Your task to perform on an android device: turn pop-ups on in chrome Image 0: 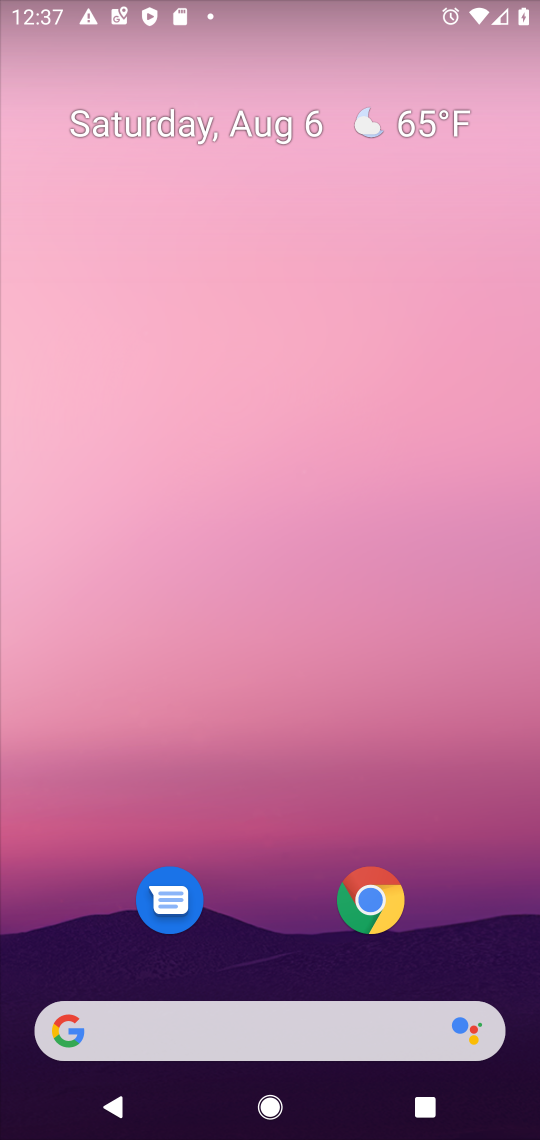
Step 0: click (371, 905)
Your task to perform on an android device: turn pop-ups on in chrome Image 1: 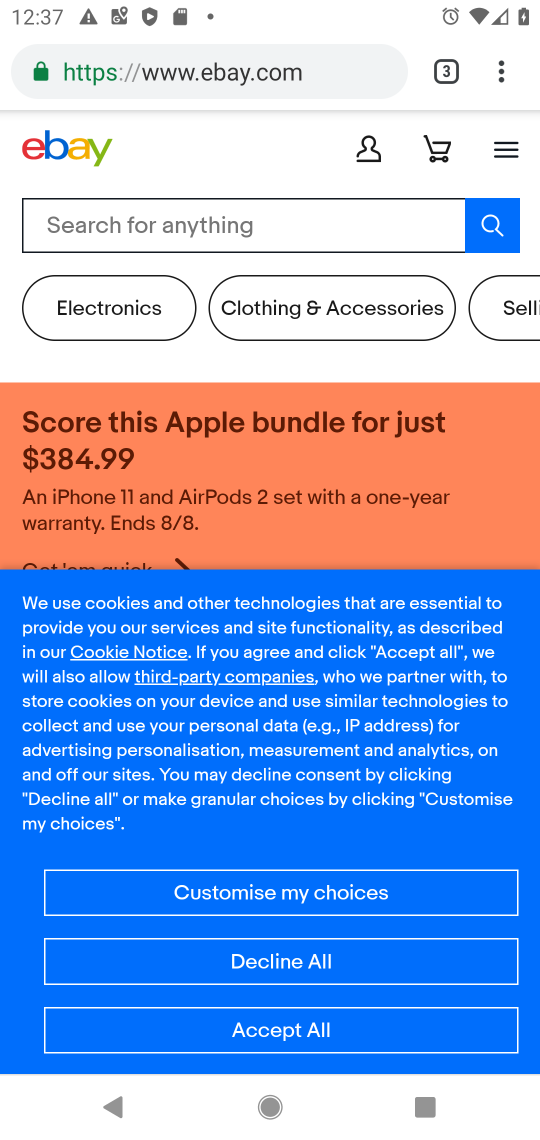
Step 1: click (497, 78)
Your task to perform on an android device: turn pop-ups on in chrome Image 2: 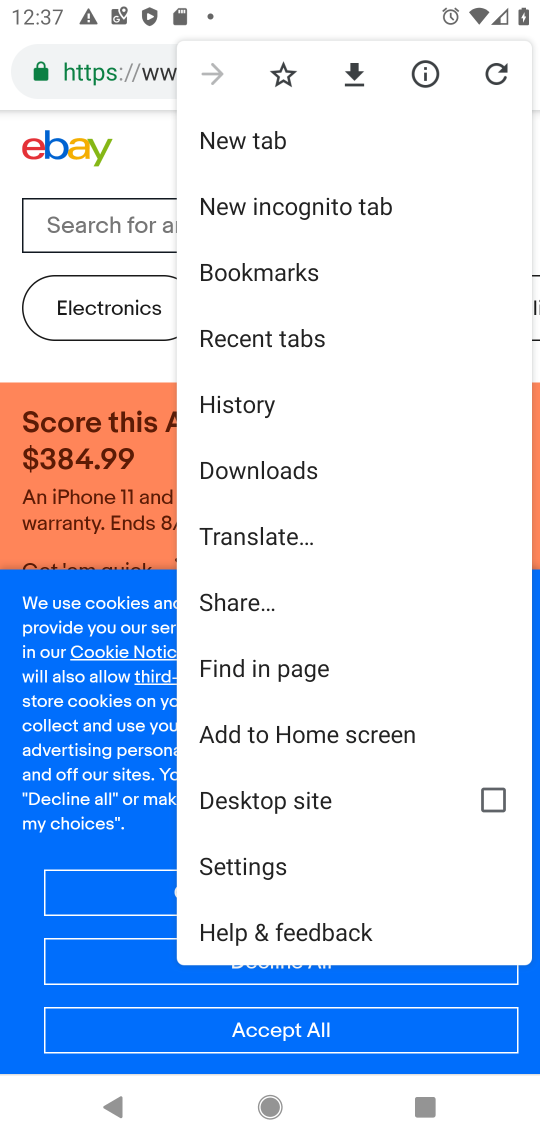
Step 2: click (262, 867)
Your task to perform on an android device: turn pop-ups on in chrome Image 3: 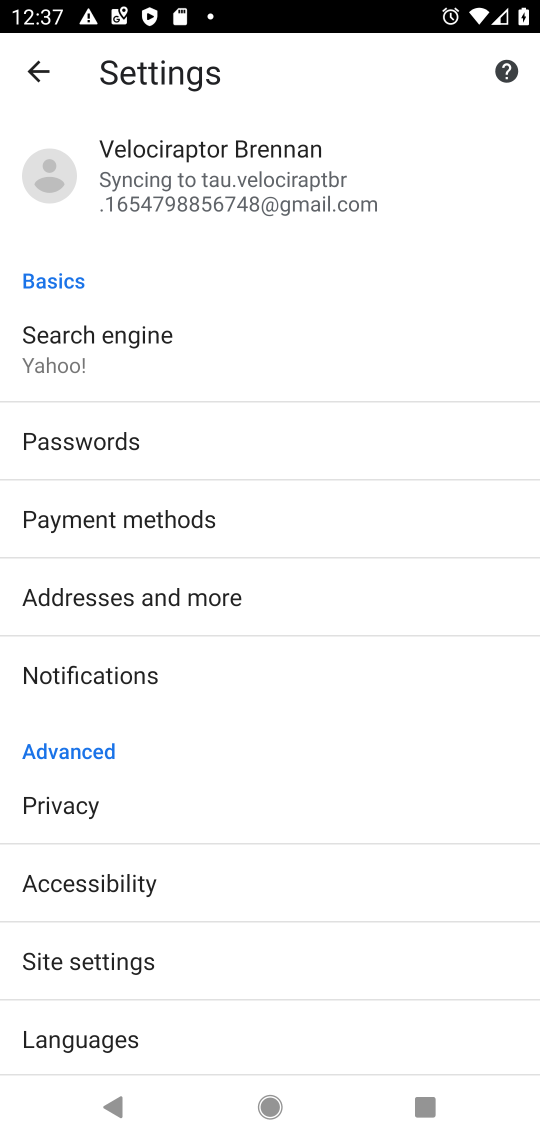
Step 3: click (98, 954)
Your task to perform on an android device: turn pop-ups on in chrome Image 4: 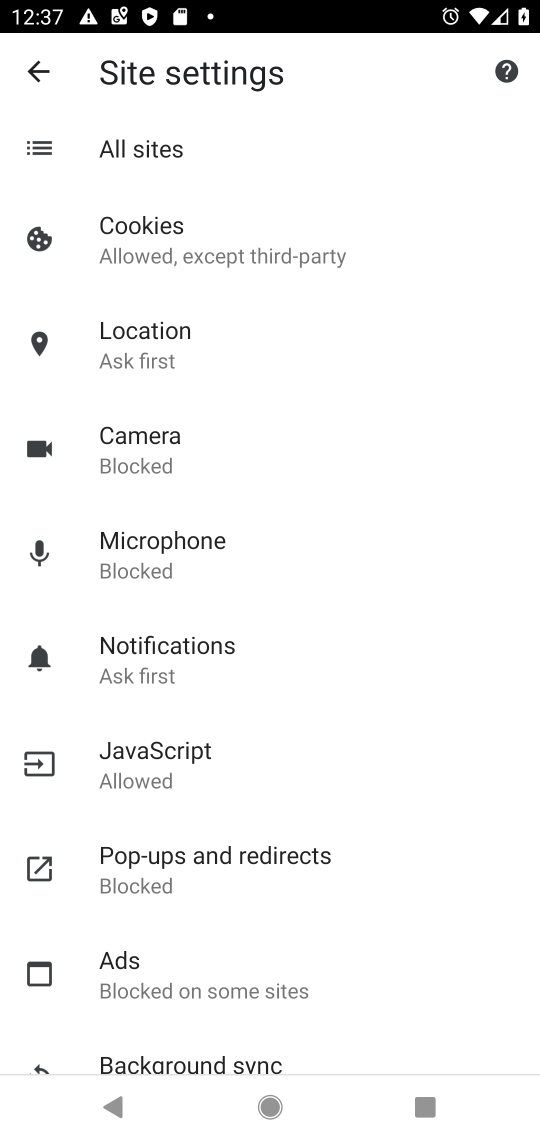
Step 4: click (171, 855)
Your task to perform on an android device: turn pop-ups on in chrome Image 5: 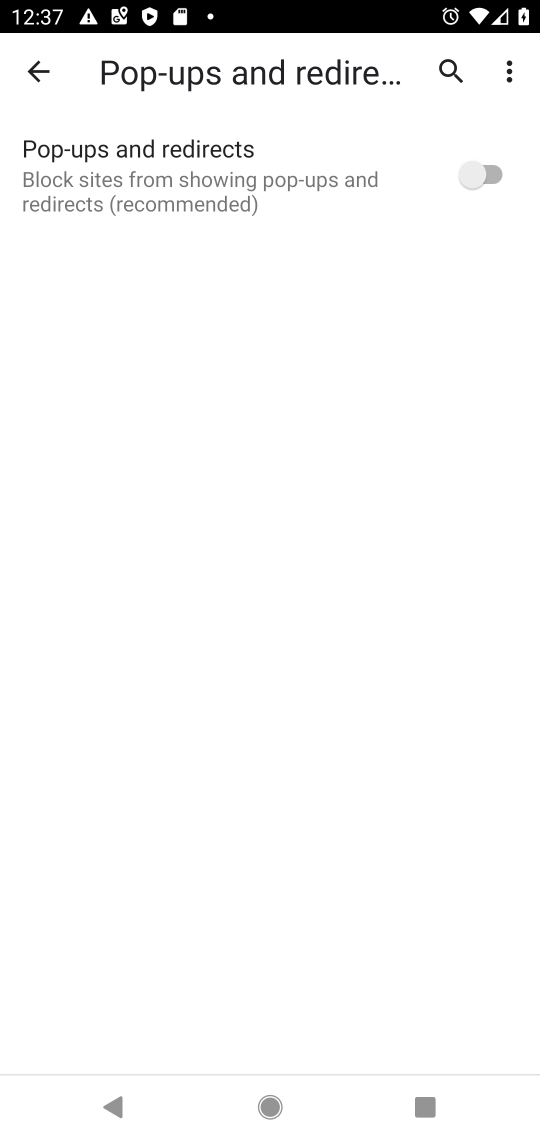
Step 5: click (490, 175)
Your task to perform on an android device: turn pop-ups on in chrome Image 6: 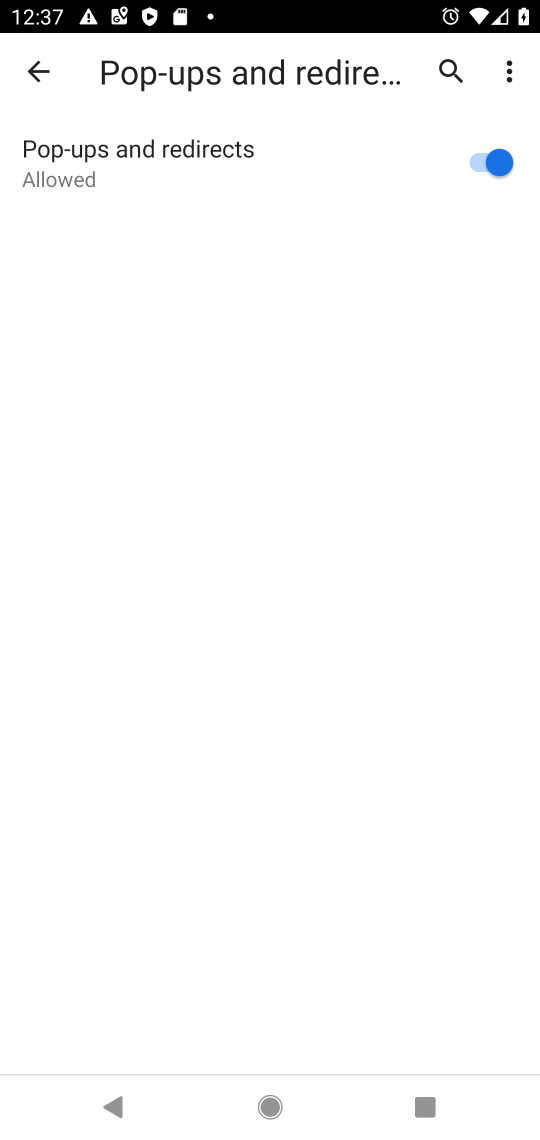
Step 6: task complete